Your task to perform on an android device: Go to ESPN.com Image 0: 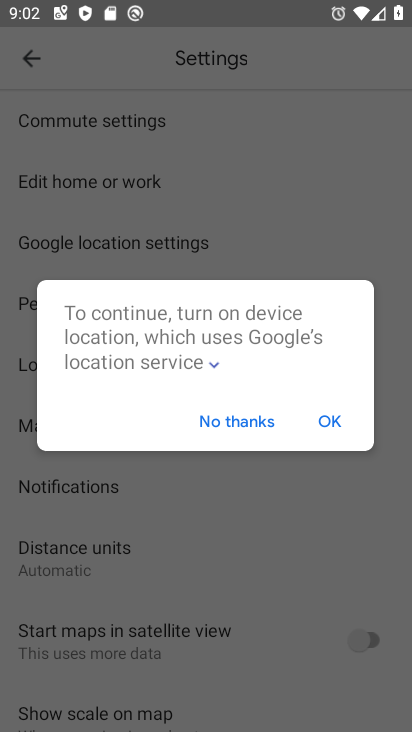
Step 0: press home button
Your task to perform on an android device: Go to ESPN.com Image 1: 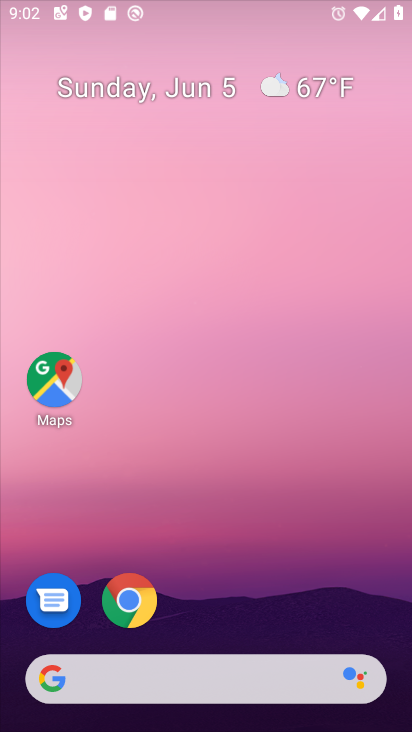
Step 1: drag from (390, 648) to (310, 87)
Your task to perform on an android device: Go to ESPN.com Image 2: 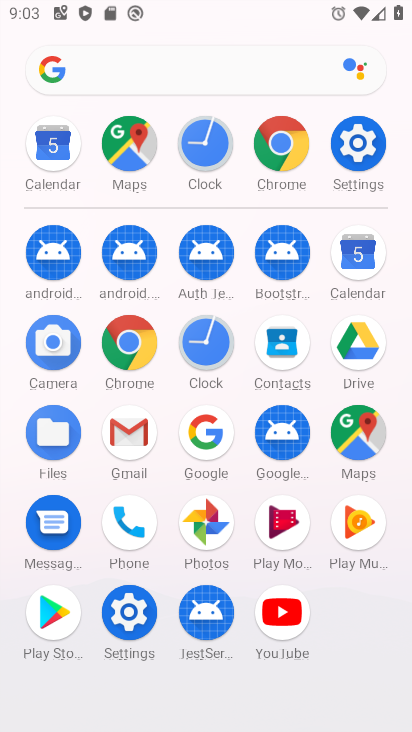
Step 2: click (194, 446)
Your task to perform on an android device: Go to ESPN.com Image 3: 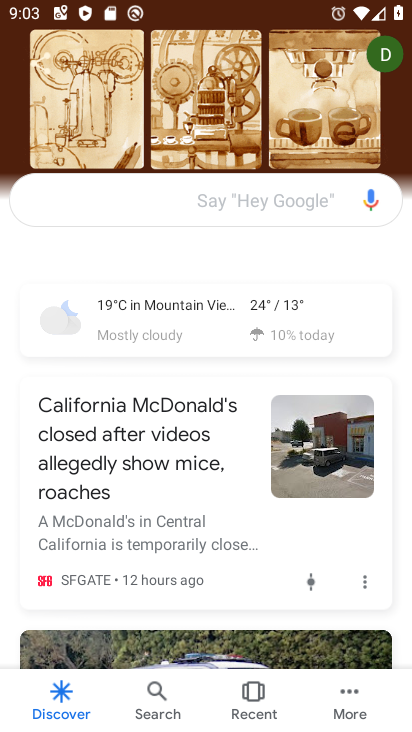
Step 3: click (161, 203)
Your task to perform on an android device: Go to ESPN.com Image 4: 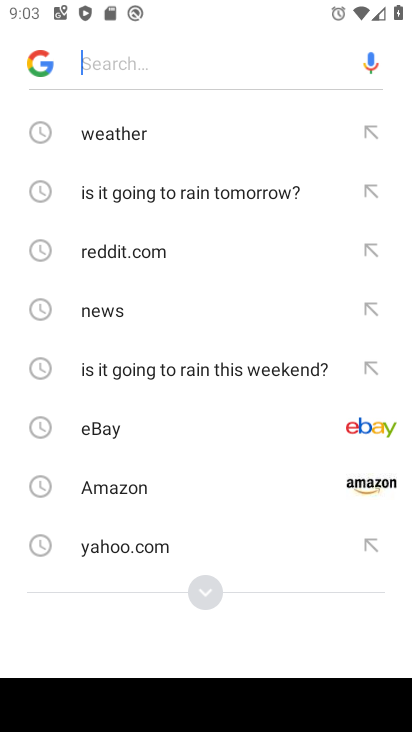
Step 4: click (194, 595)
Your task to perform on an android device: Go to ESPN.com Image 5: 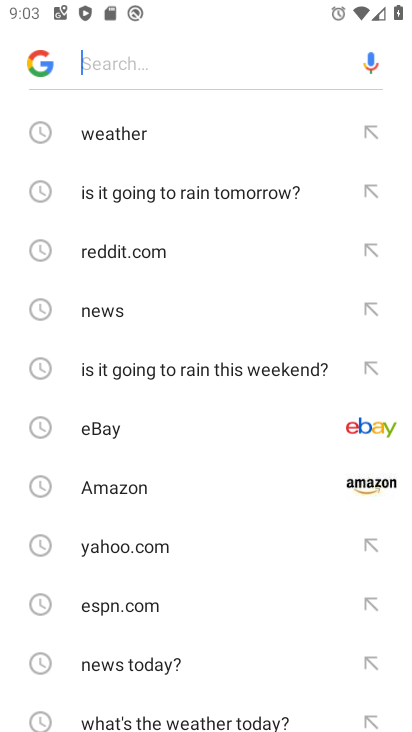
Step 5: drag from (157, 674) to (167, 208)
Your task to perform on an android device: Go to ESPN.com Image 6: 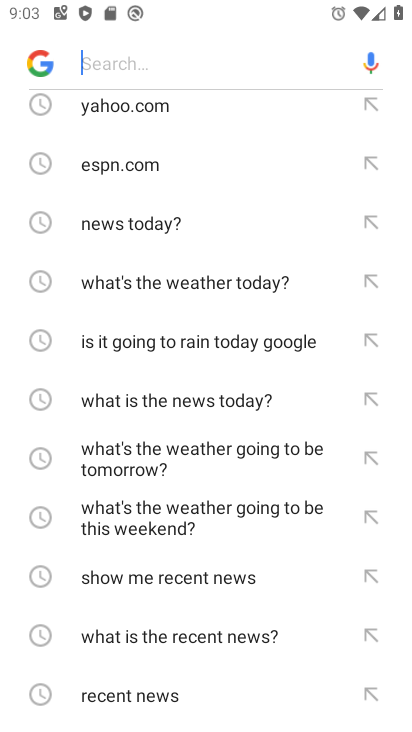
Step 6: drag from (165, 666) to (195, 248)
Your task to perform on an android device: Go to ESPN.com Image 7: 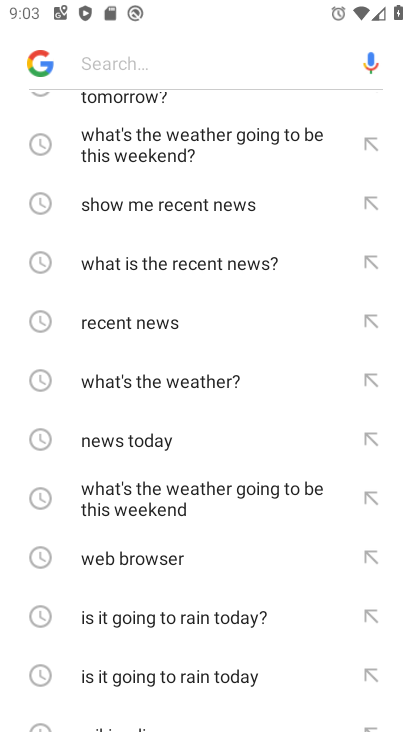
Step 7: drag from (203, 187) to (184, 602)
Your task to perform on an android device: Go to ESPN.com Image 8: 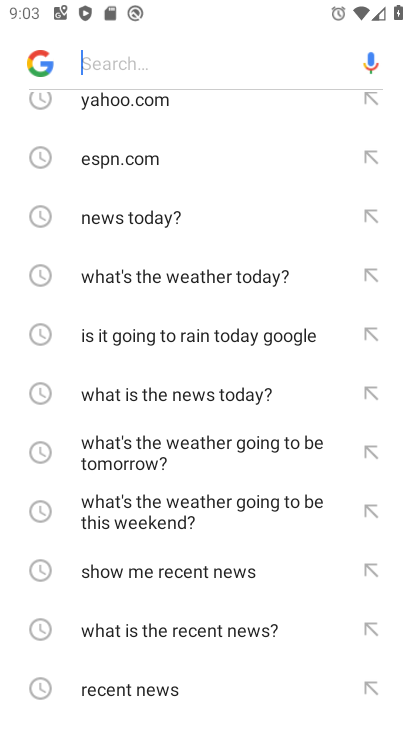
Step 8: click (137, 154)
Your task to perform on an android device: Go to ESPN.com Image 9: 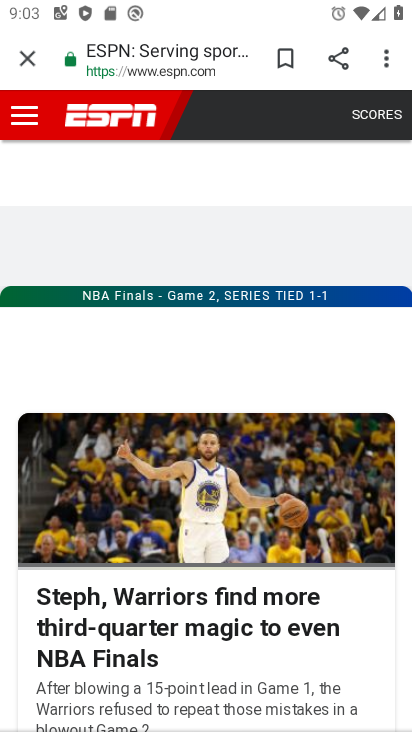
Step 9: task complete